Your task to perform on an android device: open wifi settings Image 0: 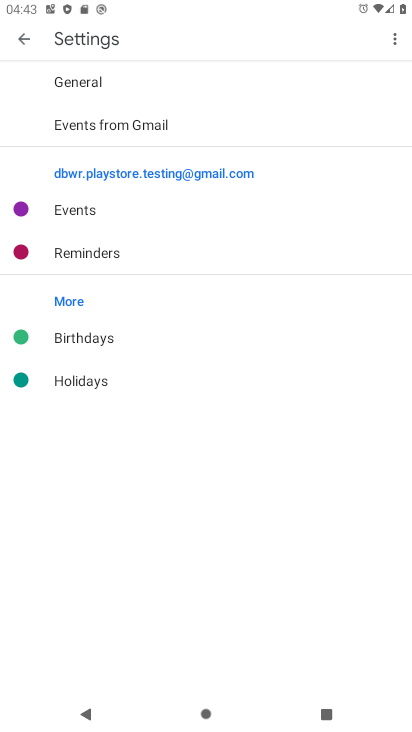
Step 0: drag from (201, 15) to (113, 587)
Your task to perform on an android device: open wifi settings Image 1: 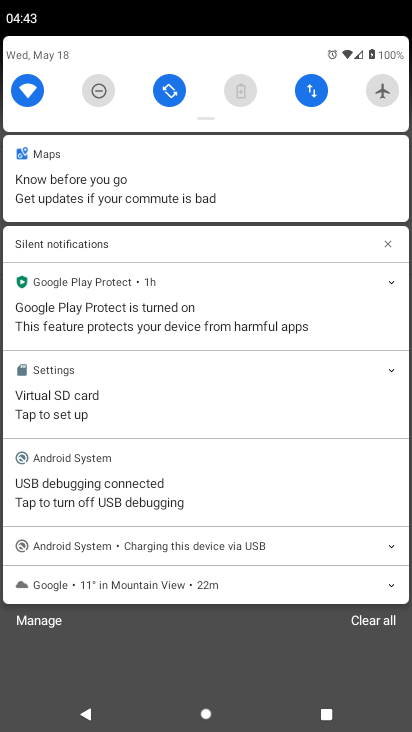
Step 1: click (32, 79)
Your task to perform on an android device: open wifi settings Image 2: 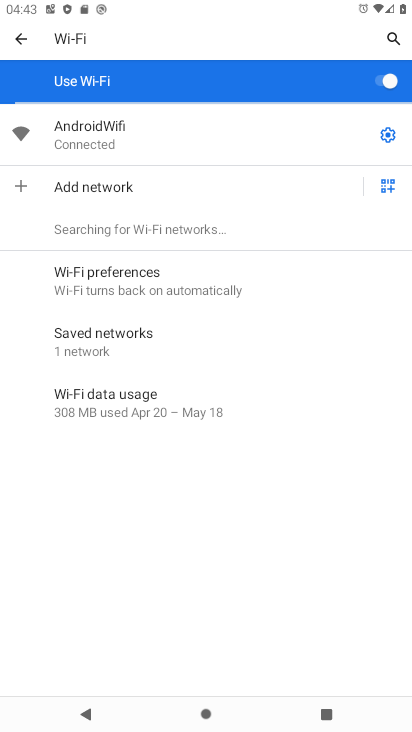
Step 2: task complete